Your task to perform on an android device: What's the weather today? Image 0: 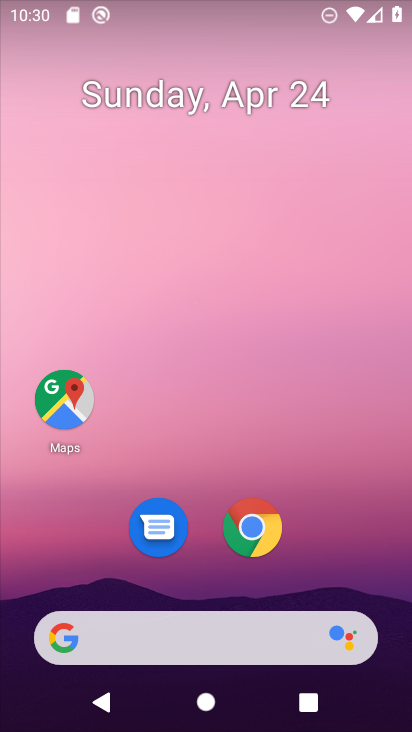
Step 0: click (154, 640)
Your task to perform on an android device: What's the weather today? Image 1: 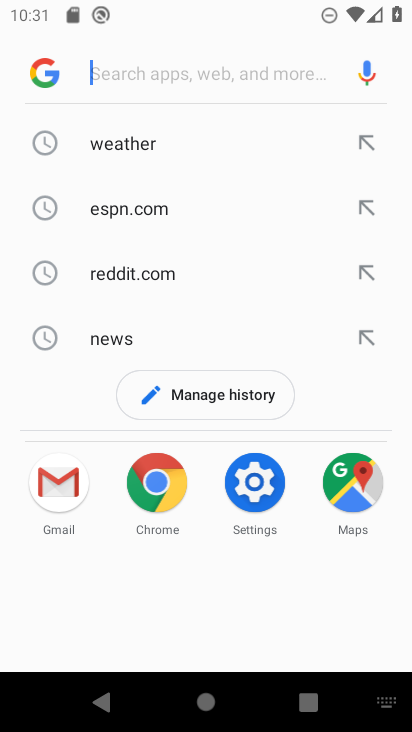
Step 1: click (221, 154)
Your task to perform on an android device: What's the weather today? Image 2: 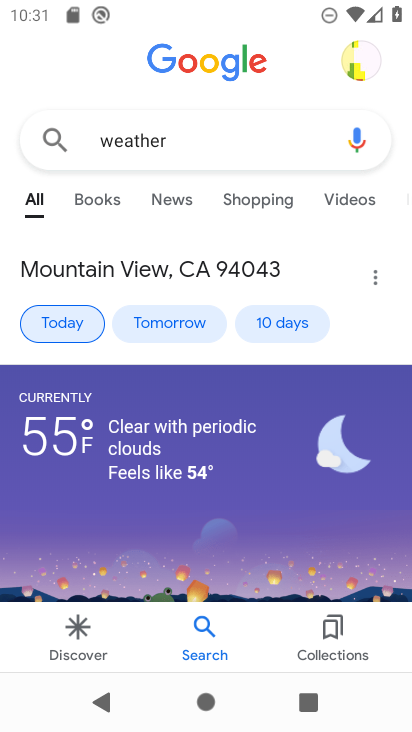
Step 2: task complete